Your task to perform on an android device: open app "Google Play services" Image 0: 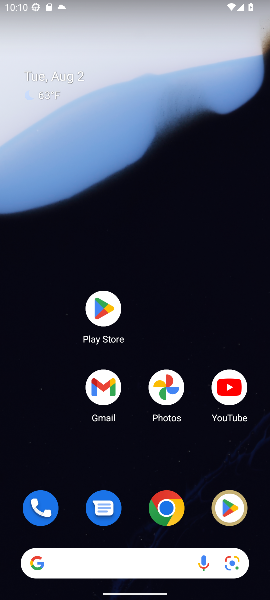
Step 0: click (106, 312)
Your task to perform on an android device: open app "Google Play services" Image 1: 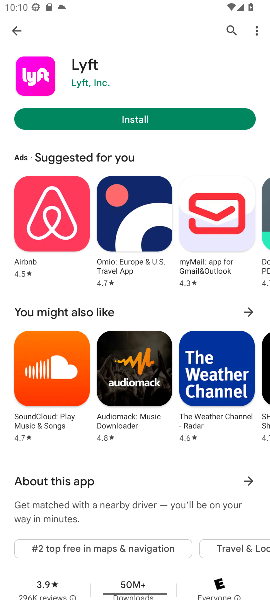
Step 1: click (222, 29)
Your task to perform on an android device: open app "Google Play services" Image 2: 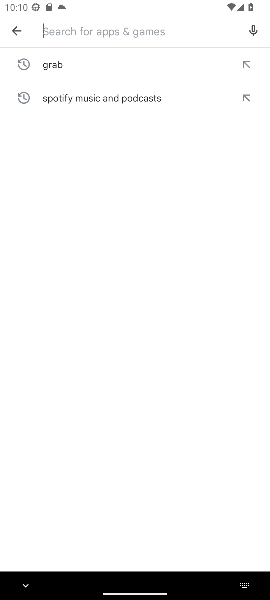
Step 2: type "Google Play services"
Your task to perform on an android device: open app "Google Play services" Image 3: 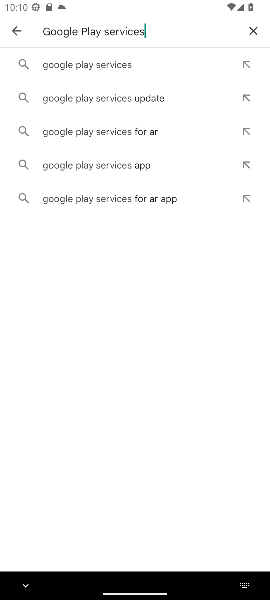
Step 3: click (110, 62)
Your task to perform on an android device: open app "Google Play services" Image 4: 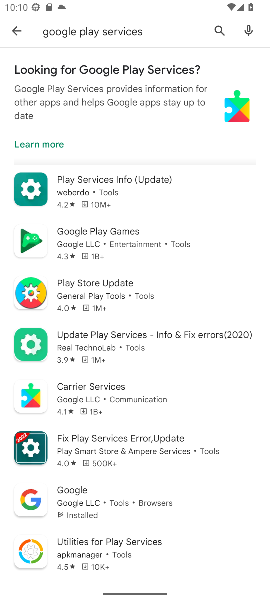
Step 4: click (46, 397)
Your task to perform on an android device: open app "Google Play services" Image 5: 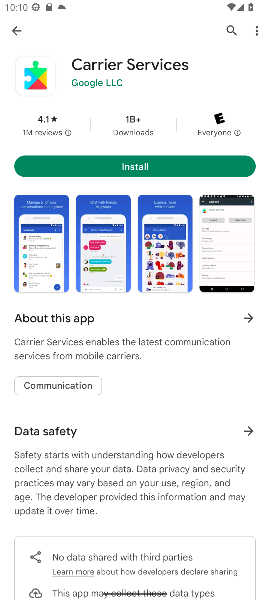
Step 5: click (9, 33)
Your task to perform on an android device: open app "Google Play services" Image 6: 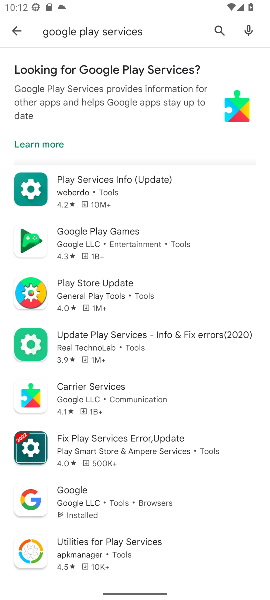
Step 6: task complete